Your task to perform on an android device: check out phone information Image 0: 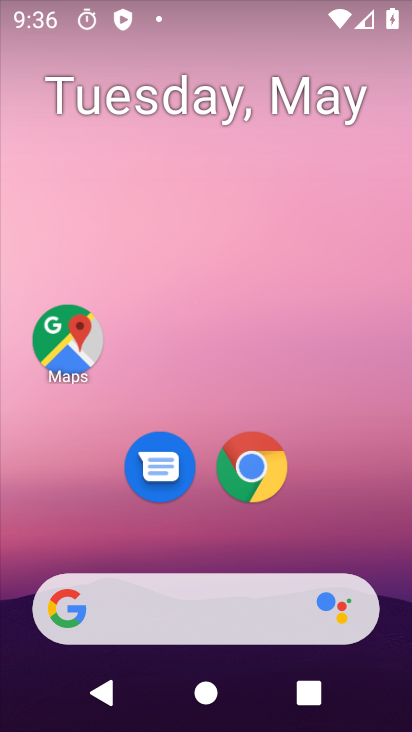
Step 0: drag from (397, 627) to (263, 0)
Your task to perform on an android device: check out phone information Image 1: 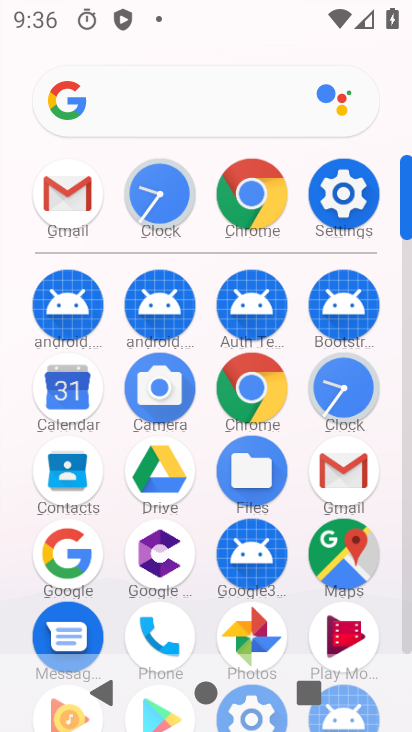
Step 1: drag from (7, 581) to (27, 204)
Your task to perform on an android device: check out phone information Image 2: 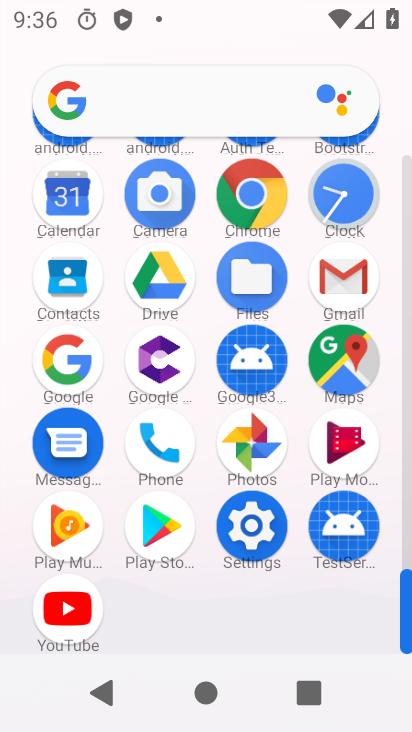
Step 2: click (251, 518)
Your task to perform on an android device: check out phone information Image 3: 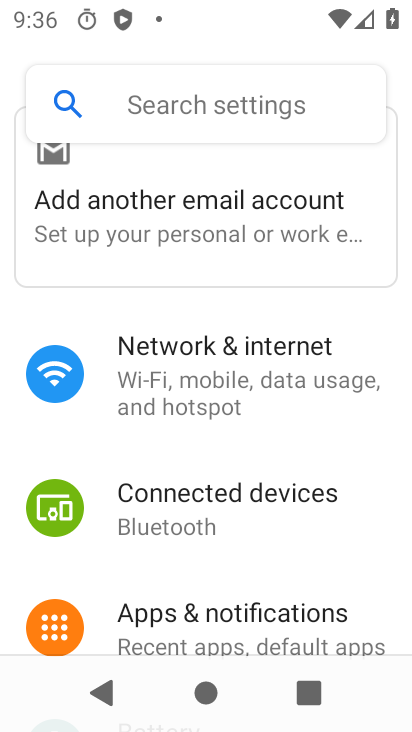
Step 3: drag from (292, 577) to (291, 108)
Your task to perform on an android device: check out phone information Image 4: 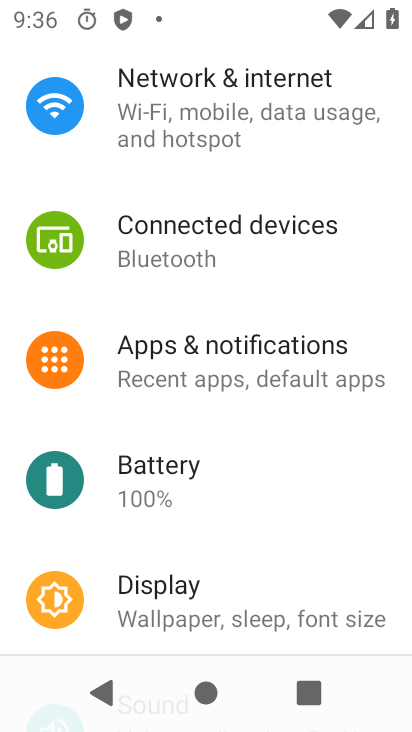
Step 4: drag from (272, 564) to (264, 155)
Your task to perform on an android device: check out phone information Image 5: 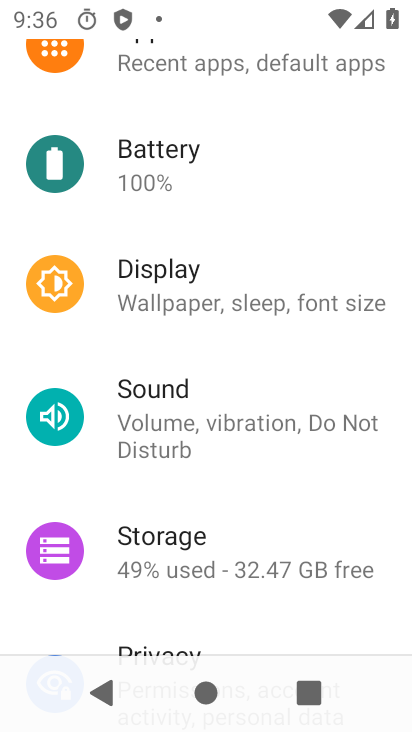
Step 5: drag from (272, 521) to (281, 140)
Your task to perform on an android device: check out phone information Image 6: 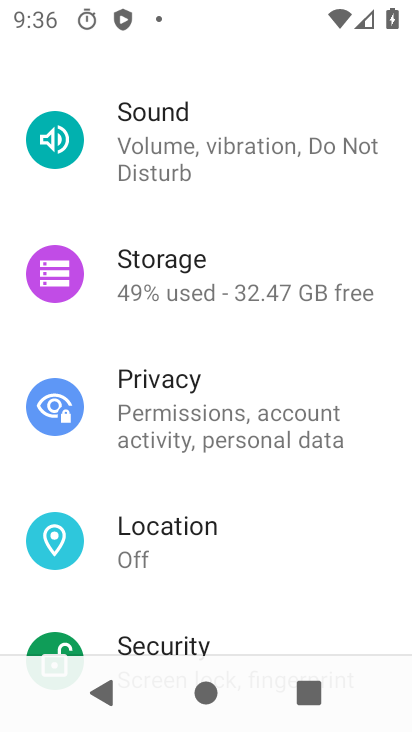
Step 6: drag from (286, 527) to (303, 131)
Your task to perform on an android device: check out phone information Image 7: 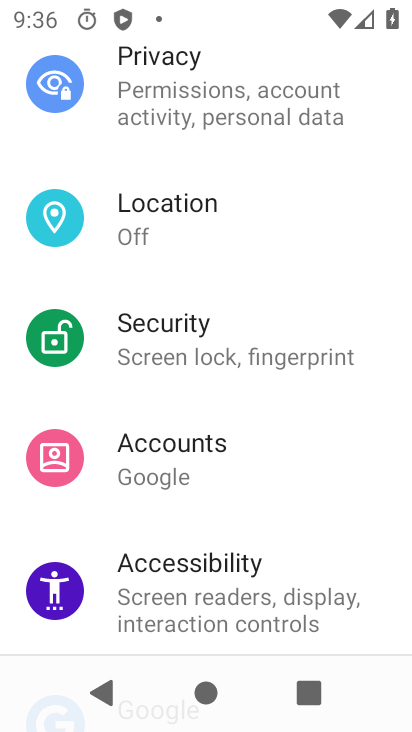
Step 7: drag from (287, 618) to (273, 138)
Your task to perform on an android device: check out phone information Image 8: 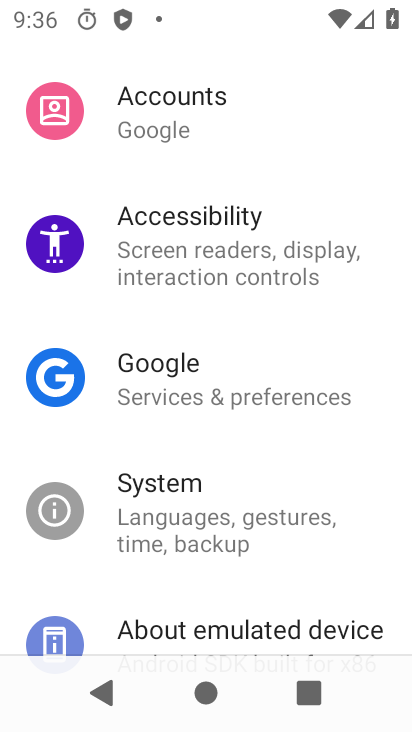
Step 8: drag from (279, 549) to (277, 112)
Your task to perform on an android device: check out phone information Image 9: 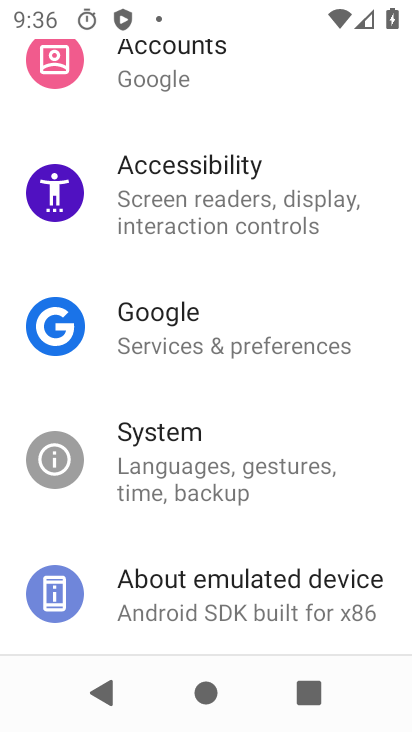
Step 9: drag from (258, 523) to (257, 224)
Your task to perform on an android device: check out phone information Image 10: 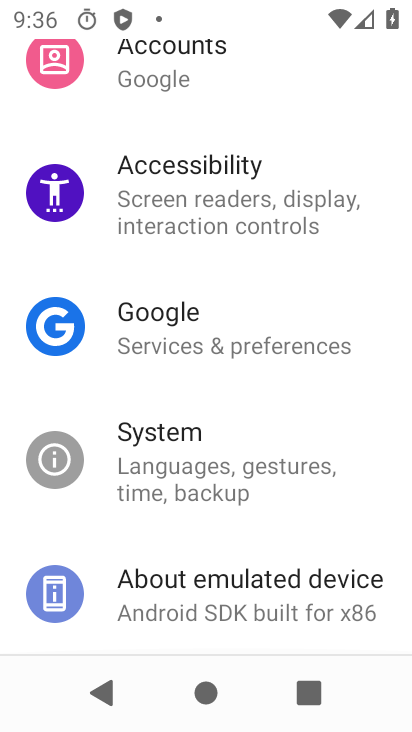
Step 10: click (210, 603)
Your task to perform on an android device: check out phone information Image 11: 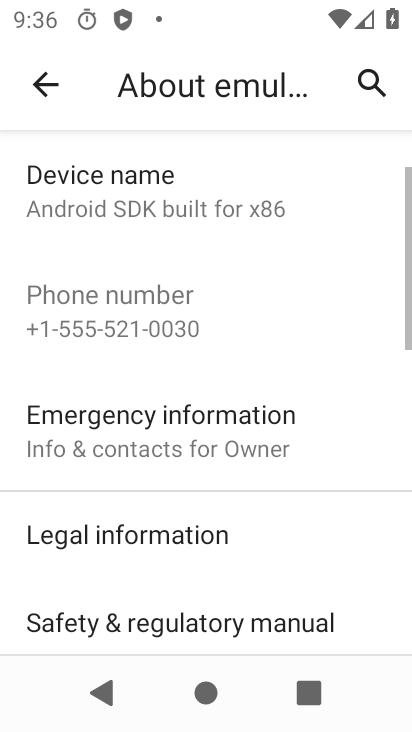
Step 11: task complete